Your task to perform on an android device: install app "Booking.com: Hotels and more" Image 0: 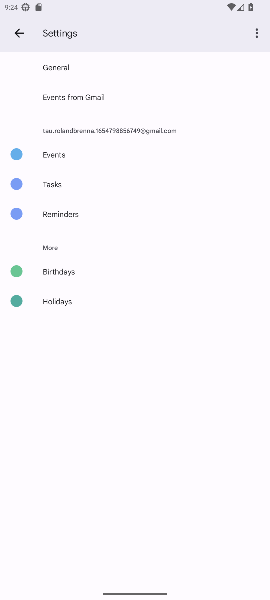
Step 0: press home button
Your task to perform on an android device: install app "Booking.com: Hotels and more" Image 1: 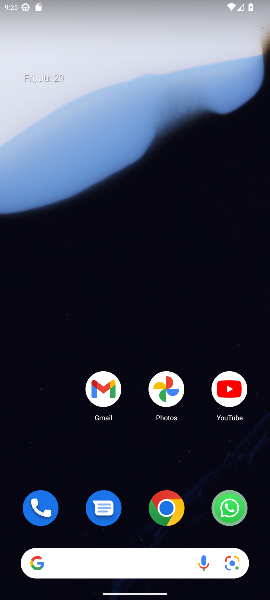
Step 1: drag from (134, 562) to (247, 10)
Your task to perform on an android device: install app "Booking.com: Hotels and more" Image 2: 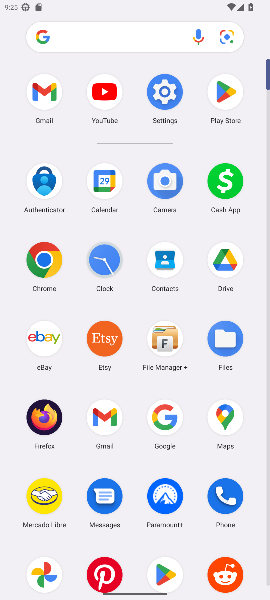
Step 2: click (223, 93)
Your task to perform on an android device: install app "Booking.com: Hotels and more" Image 3: 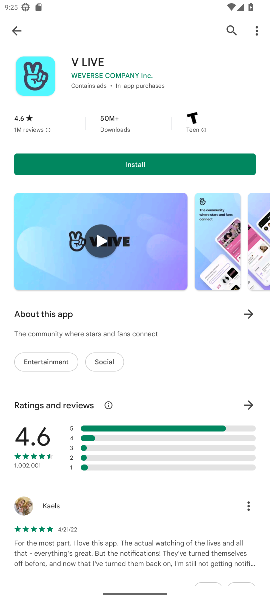
Step 3: click (228, 27)
Your task to perform on an android device: install app "Booking.com: Hotels and more" Image 4: 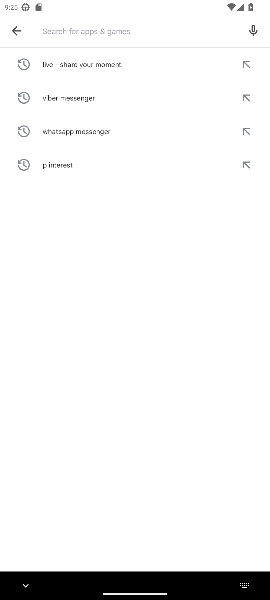
Step 4: type "booking.com: hotels and more"
Your task to perform on an android device: install app "Booking.com: Hotels and more" Image 5: 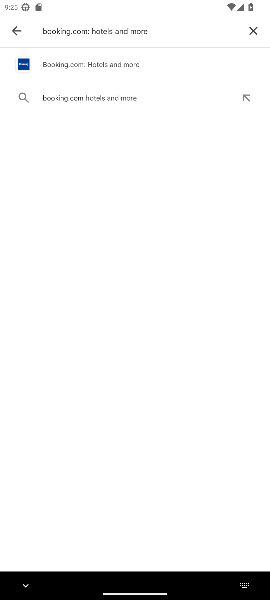
Step 5: click (87, 63)
Your task to perform on an android device: install app "Booking.com: Hotels and more" Image 6: 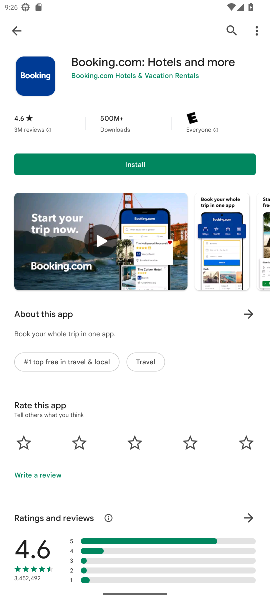
Step 6: click (148, 168)
Your task to perform on an android device: install app "Booking.com: Hotels and more" Image 7: 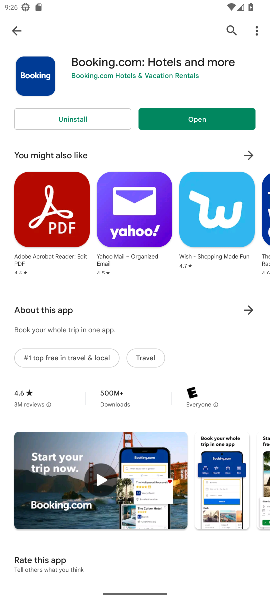
Step 7: task complete